Your task to perform on an android device: Open Chrome and go to settings Image 0: 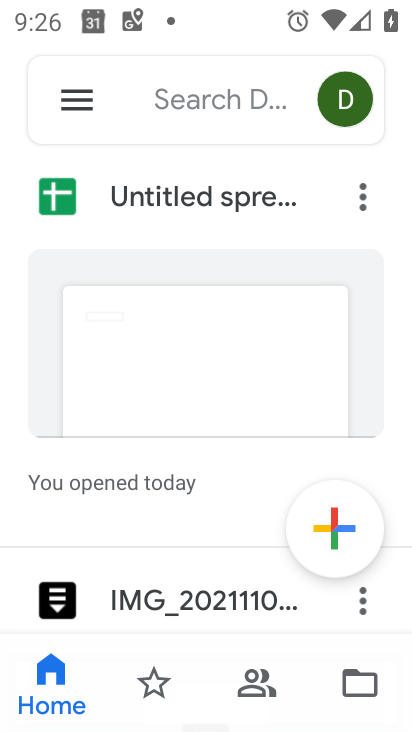
Step 0: press home button
Your task to perform on an android device: Open Chrome and go to settings Image 1: 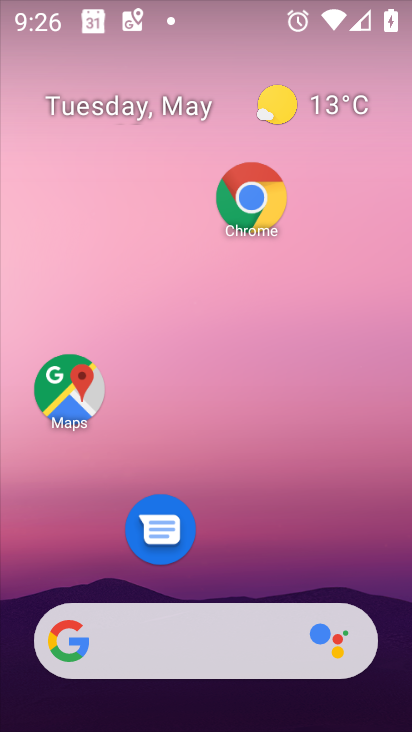
Step 1: click (268, 189)
Your task to perform on an android device: Open Chrome and go to settings Image 2: 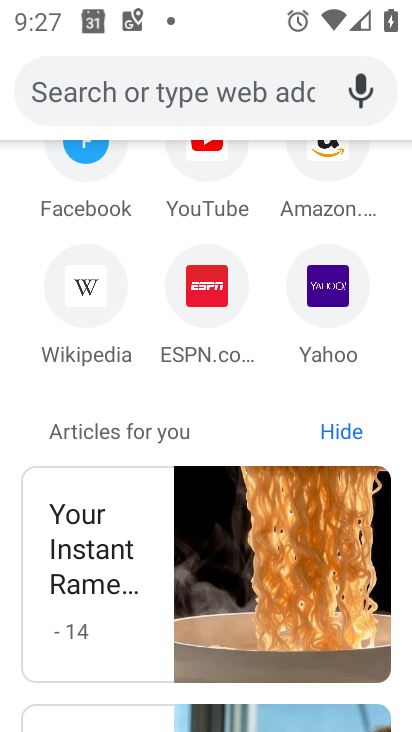
Step 2: drag from (328, 339) to (296, 727)
Your task to perform on an android device: Open Chrome and go to settings Image 3: 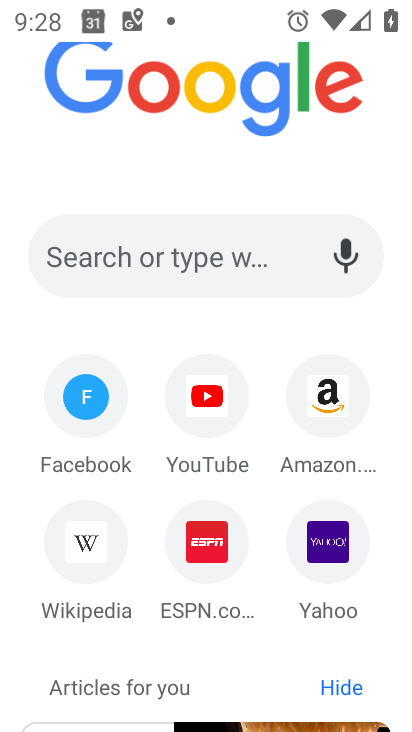
Step 3: drag from (371, 153) to (371, 442)
Your task to perform on an android device: Open Chrome and go to settings Image 4: 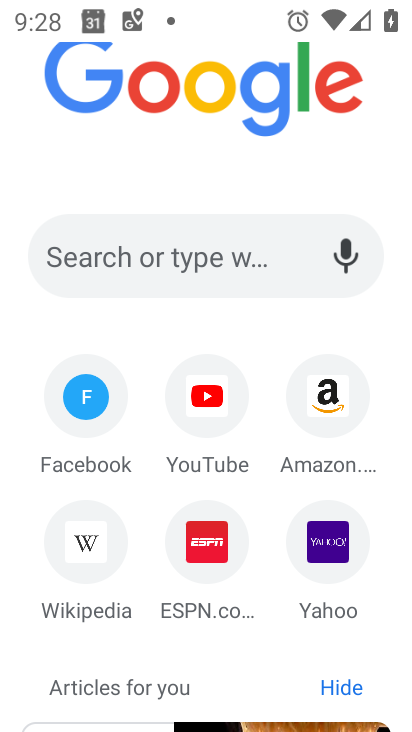
Step 4: drag from (274, 172) to (252, 680)
Your task to perform on an android device: Open Chrome and go to settings Image 5: 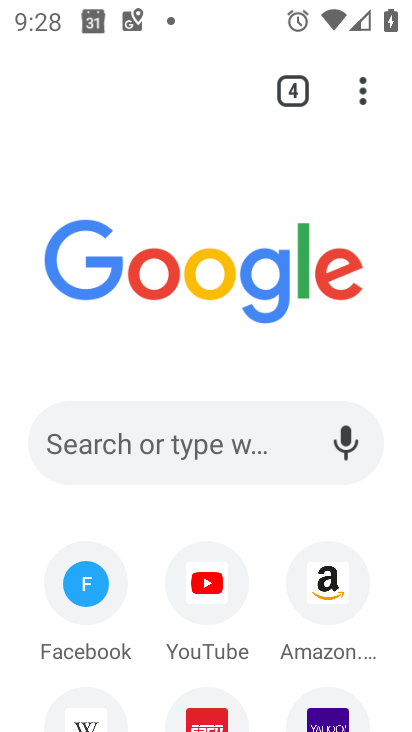
Step 5: click (364, 81)
Your task to perform on an android device: Open Chrome and go to settings Image 6: 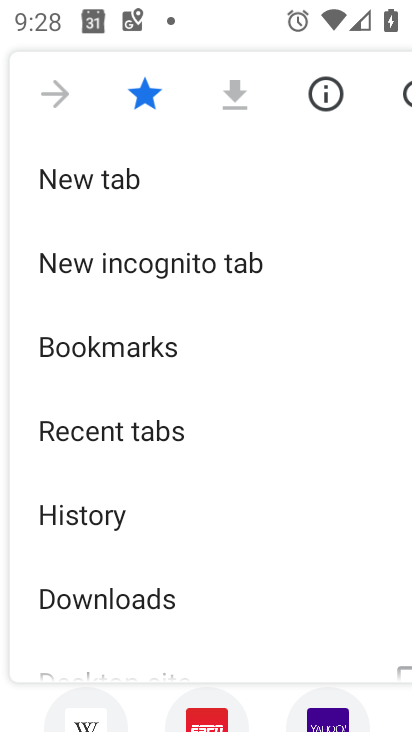
Step 6: drag from (244, 433) to (246, 330)
Your task to perform on an android device: Open Chrome and go to settings Image 7: 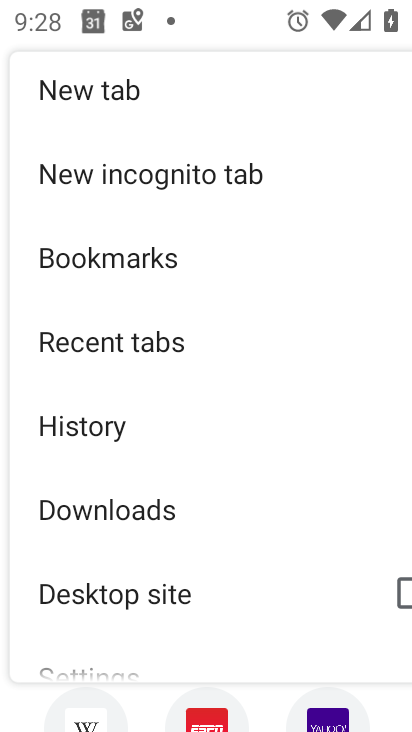
Step 7: drag from (141, 531) to (149, 361)
Your task to perform on an android device: Open Chrome and go to settings Image 8: 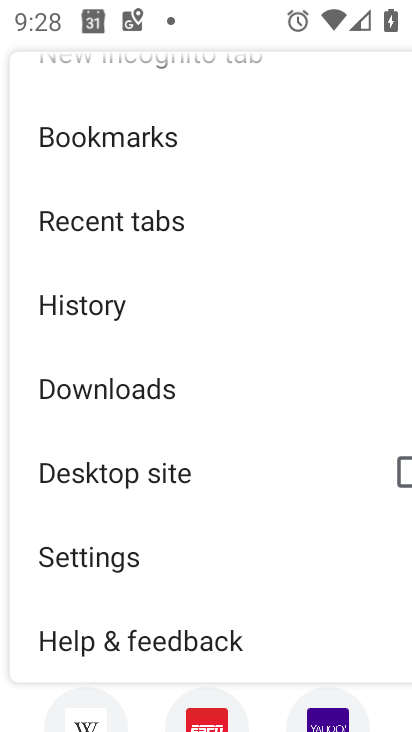
Step 8: click (122, 536)
Your task to perform on an android device: Open Chrome and go to settings Image 9: 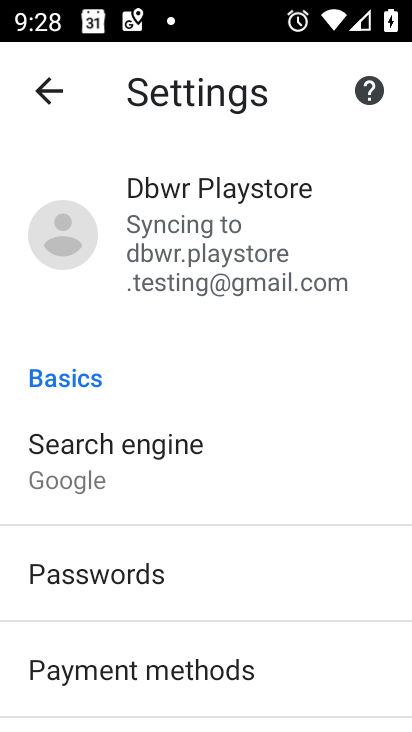
Step 9: task complete